Your task to perform on an android device: Search for pizza restaurants on Maps Image 0: 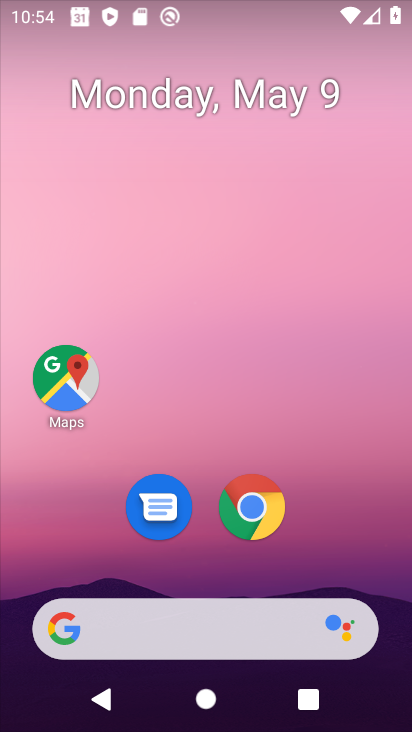
Step 0: click (58, 375)
Your task to perform on an android device: Search for pizza restaurants on Maps Image 1: 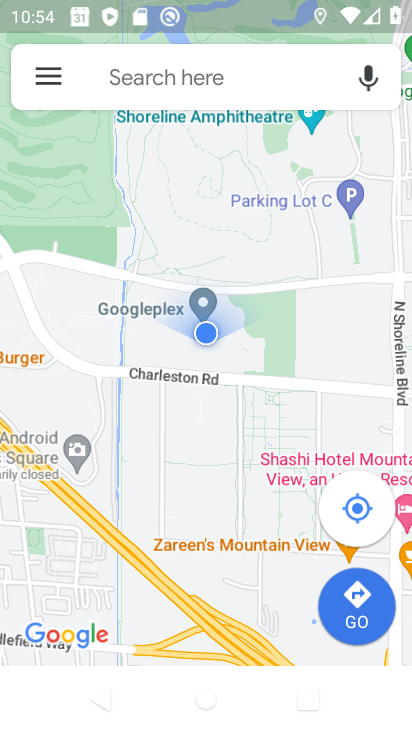
Step 1: click (228, 72)
Your task to perform on an android device: Search for pizza restaurants on Maps Image 2: 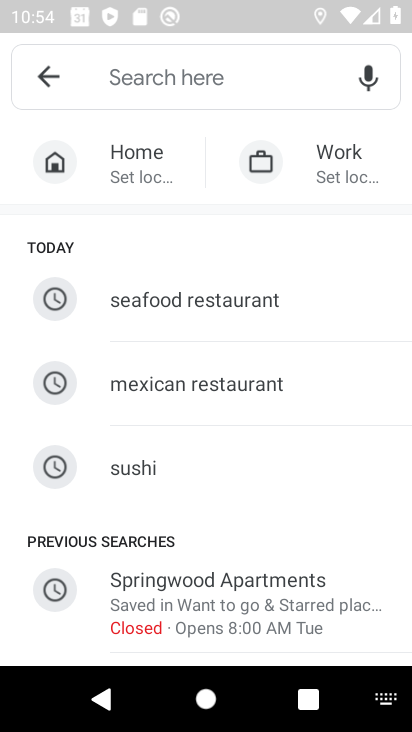
Step 2: click (145, 90)
Your task to perform on an android device: Search for pizza restaurants on Maps Image 3: 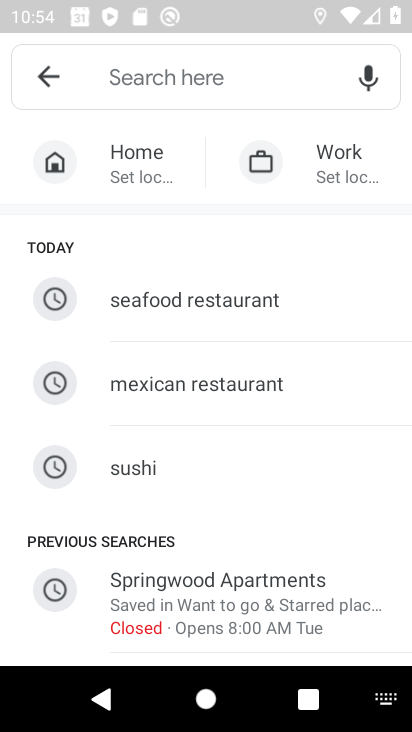
Step 3: type "pizza resturants"
Your task to perform on an android device: Search for pizza restaurants on Maps Image 4: 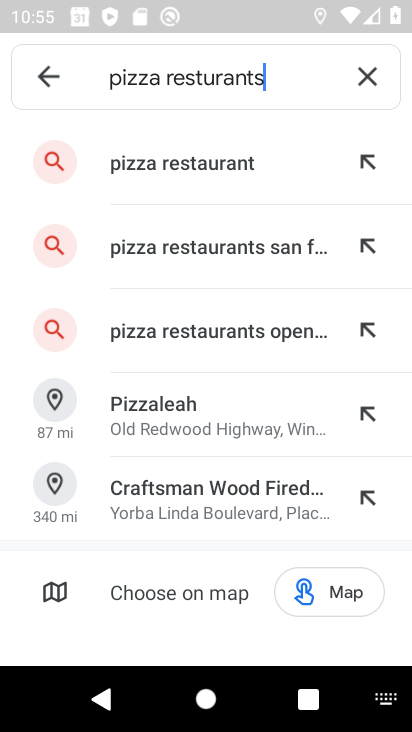
Step 4: click (223, 170)
Your task to perform on an android device: Search for pizza restaurants on Maps Image 5: 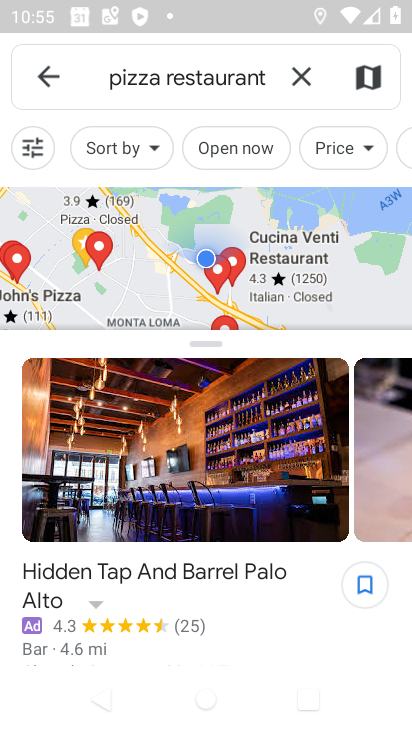
Step 5: task complete